Your task to perform on an android device: Open the web browser Image 0: 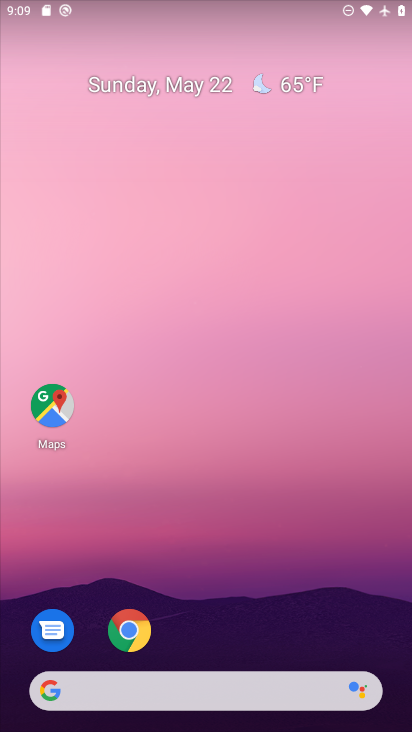
Step 0: press home button
Your task to perform on an android device: Open the web browser Image 1: 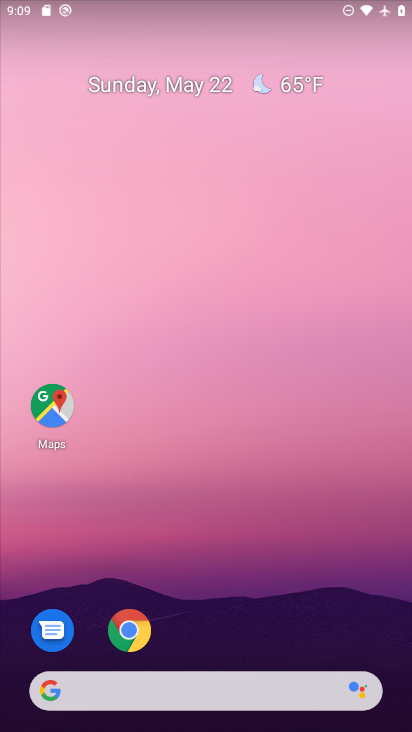
Step 1: click (142, 637)
Your task to perform on an android device: Open the web browser Image 2: 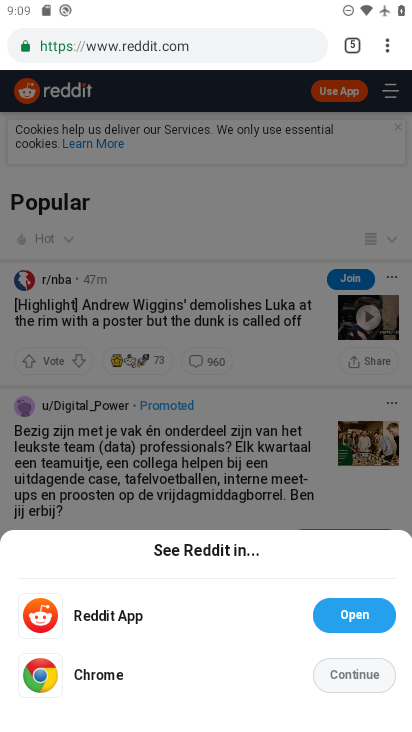
Step 2: task complete